Your task to perform on an android device: Is it going to rain this weekend? Image 0: 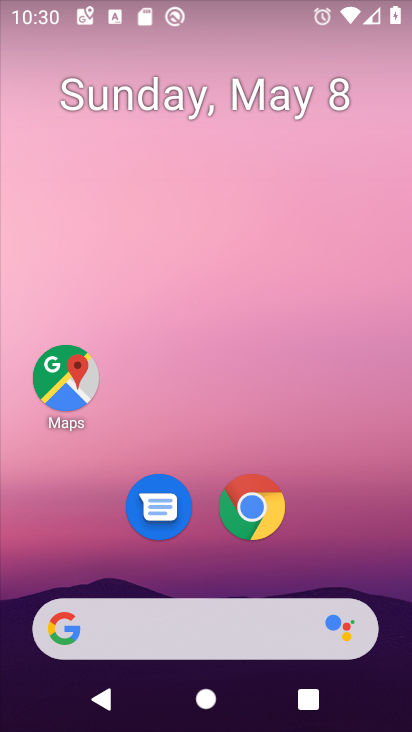
Step 0: type "Is it going to rain this weekend?"
Your task to perform on an android device: Is it going to rain this weekend? Image 1: 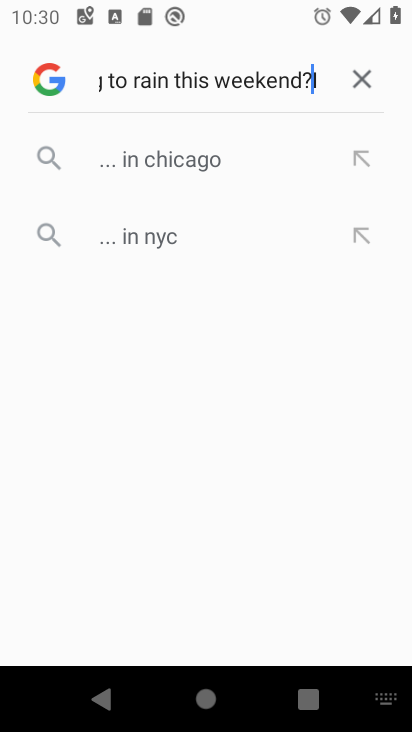
Step 1: click (133, 94)
Your task to perform on an android device: Is it going to rain this weekend? Image 2: 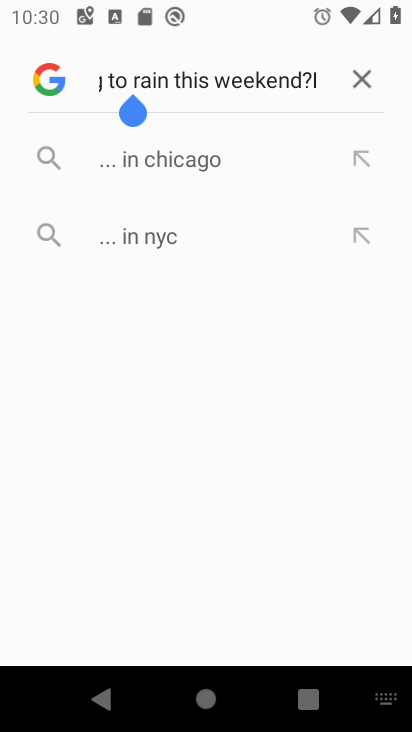
Step 2: drag from (311, 72) to (92, 64)
Your task to perform on an android device: Is it going to rain this weekend? Image 3: 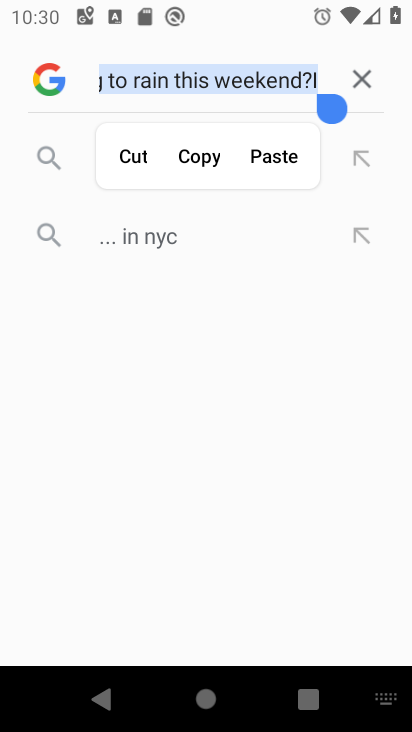
Step 3: click (143, 152)
Your task to perform on an android device: Is it going to rain this weekend? Image 4: 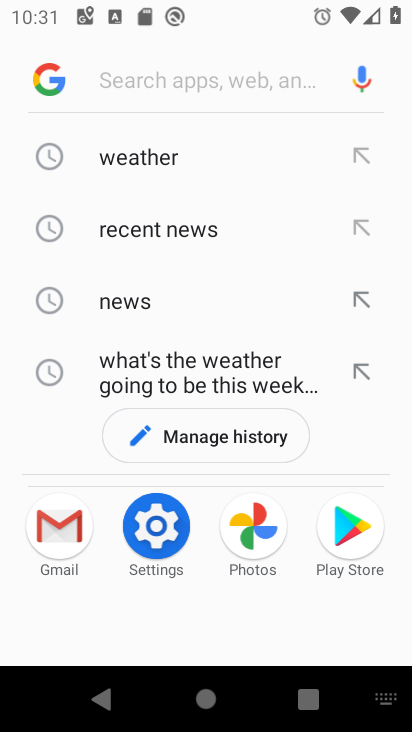
Step 4: click (298, 91)
Your task to perform on an android device: Is it going to rain this weekend? Image 5: 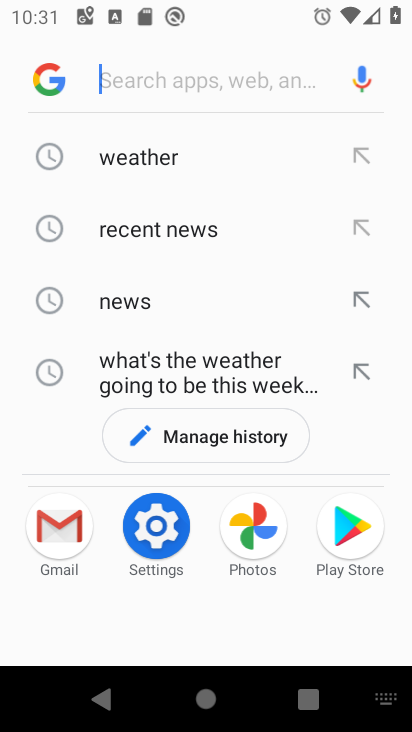
Step 5: type "Is it going to rain this weekend"
Your task to perform on an android device: Is it going to rain this weekend? Image 6: 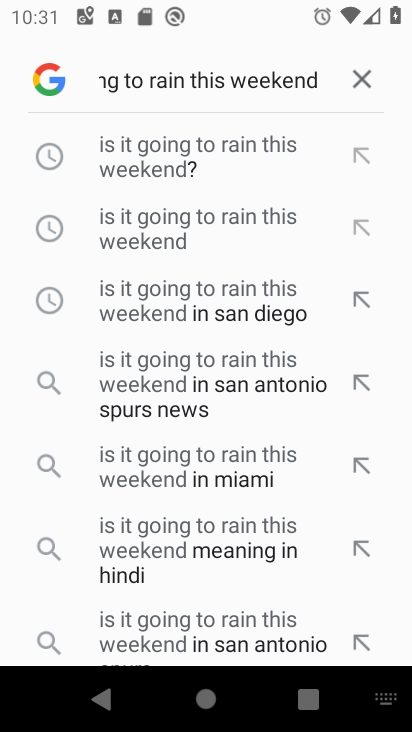
Step 6: click (256, 150)
Your task to perform on an android device: Is it going to rain this weekend? Image 7: 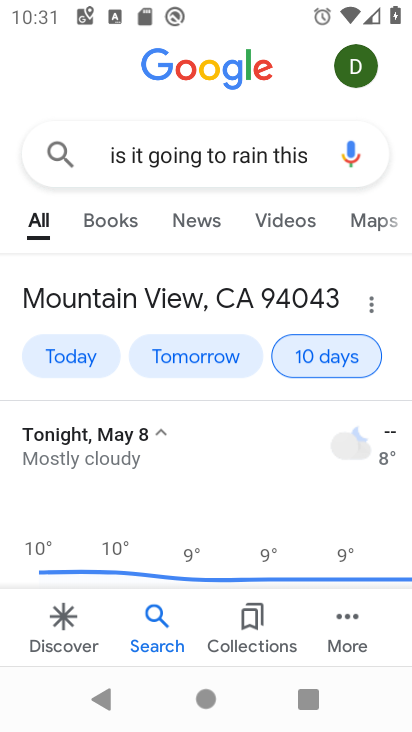
Step 7: task complete